Your task to perform on an android device: Open Yahoo.com Image 0: 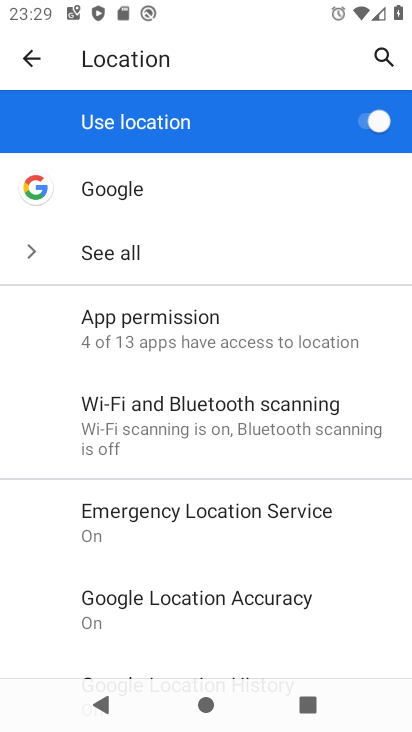
Step 0: press home button
Your task to perform on an android device: Open Yahoo.com Image 1: 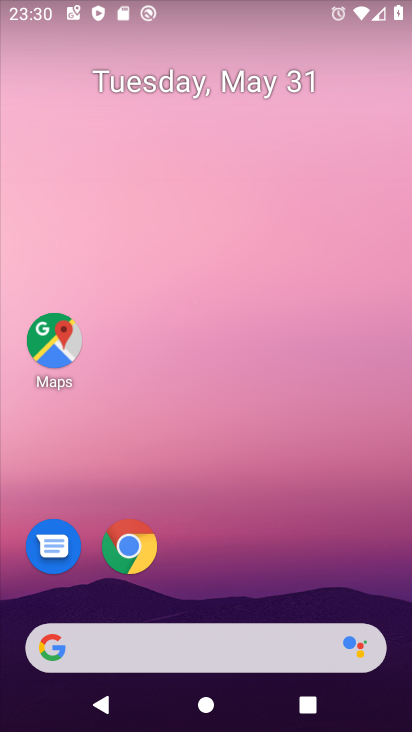
Step 1: click (146, 547)
Your task to perform on an android device: Open Yahoo.com Image 2: 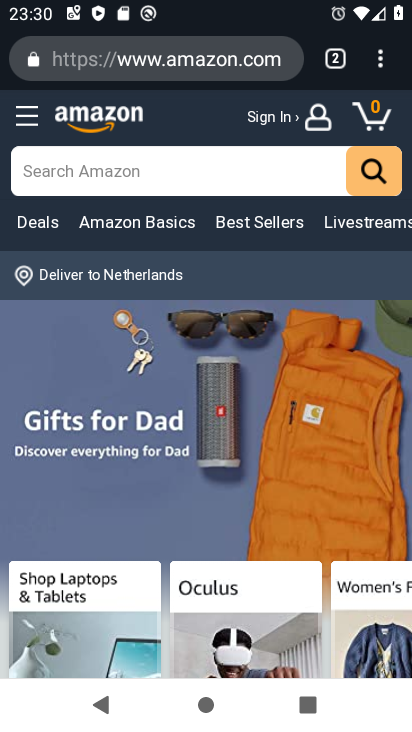
Step 2: click (200, 67)
Your task to perform on an android device: Open Yahoo.com Image 3: 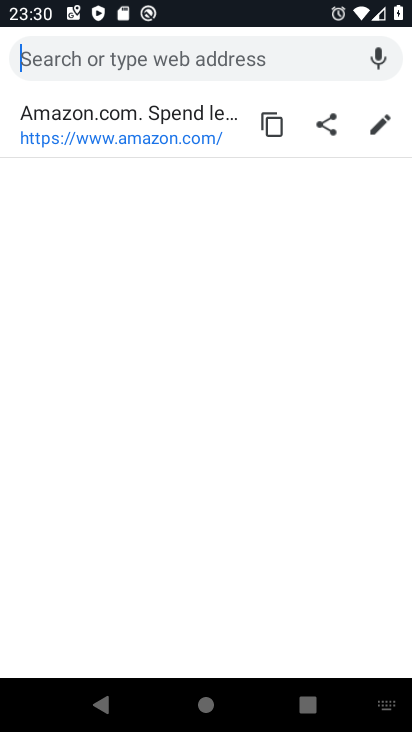
Step 3: type "yahoo.com"
Your task to perform on an android device: Open Yahoo.com Image 4: 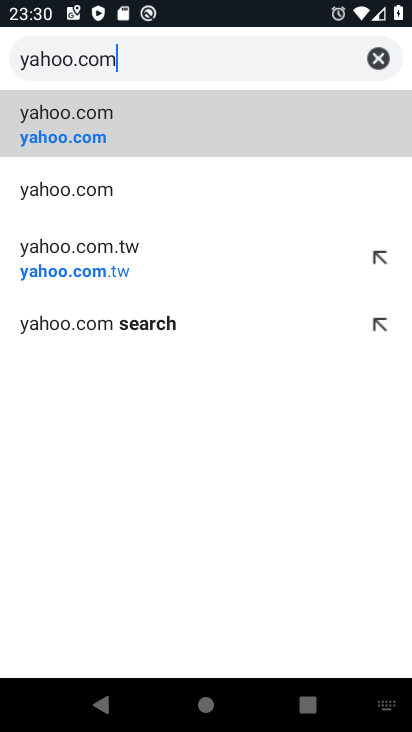
Step 4: click (90, 141)
Your task to perform on an android device: Open Yahoo.com Image 5: 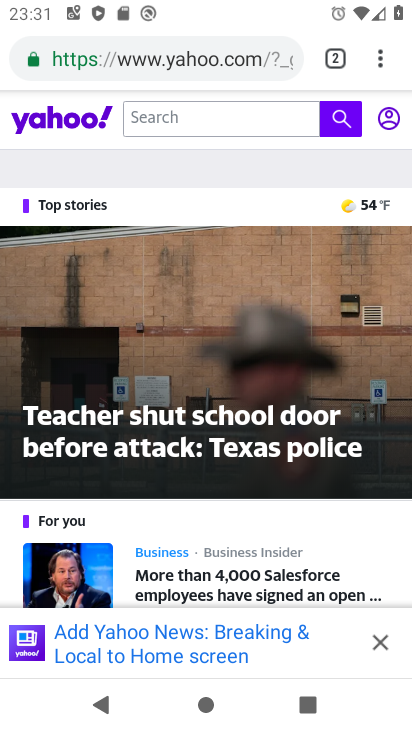
Step 5: task complete